Your task to perform on an android device: View the shopping cart on target.com. Add razer nari to the cart on target.com Image 0: 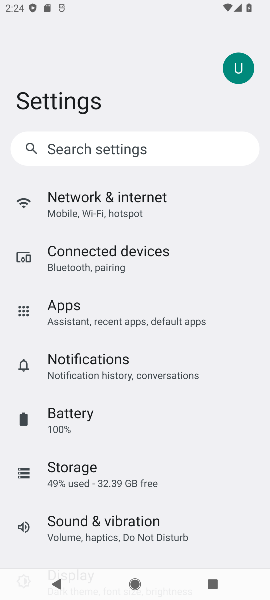
Step 0: press home button
Your task to perform on an android device: View the shopping cart on target.com. Add razer nari to the cart on target.com Image 1: 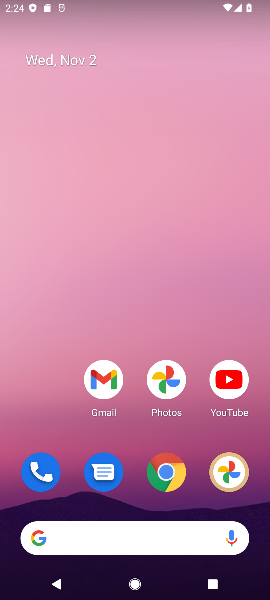
Step 1: click (165, 472)
Your task to perform on an android device: View the shopping cart on target.com. Add razer nari to the cart on target.com Image 2: 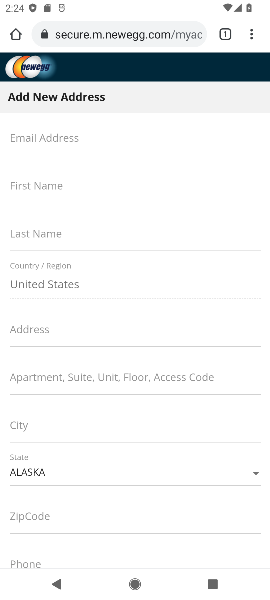
Step 2: click (121, 31)
Your task to perform on an android device: View the shopping cart on target.com. Add razer nari to the cart on target.com Image 3: 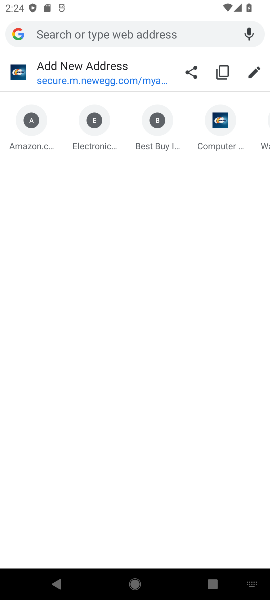
Step 3: type "target.com"
Your task to perform on an android device: View the shopping cart on target.com. Add razer nari to the cart on target.com Image 4: 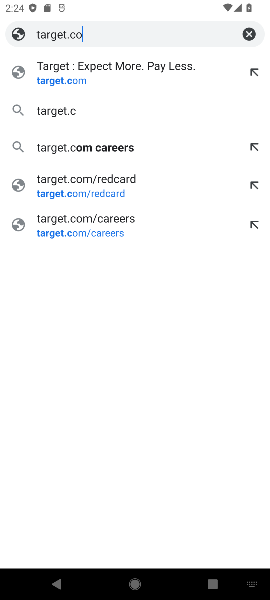
Step 4: type ""
Your task to perform on an android device: View the shopping cart on target.com. Add razer nari to the cart on target.com Image 5: 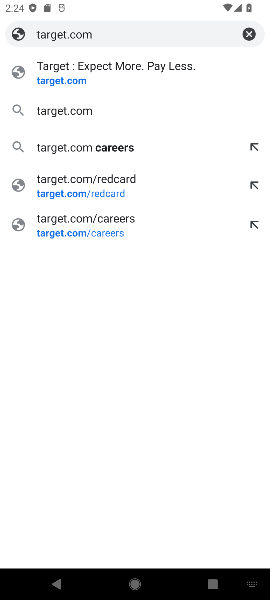
Step 5: click (36, 84)
Your task to perform on an android device: View the shopping cart on target.com. Add razer nari to the cart on target.com Image 6: 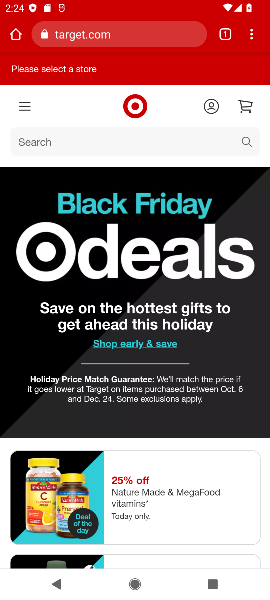
Step 6: click (114, 146)
Your task to perform on an android device: View the shopping cart on target.com. Add razer nari to the cart on target.com Image 7: 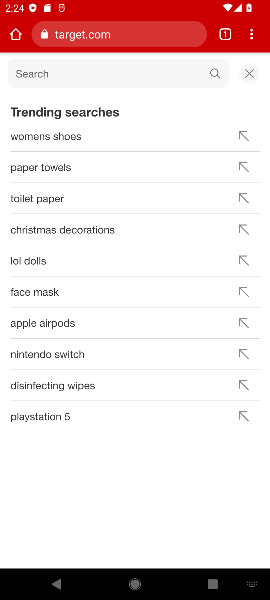
Step 7: type "razer nari"
Your task to perform on an android device: View the shopping cart on target.com. Add razer nari to the cart on target.com Image 8: 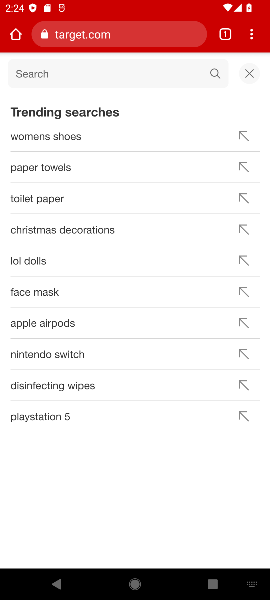
Step 8: type ""
Your task to perform on an android device: View the shopping cart on target.com. Add razer nari to the cart on target.com Image 9: 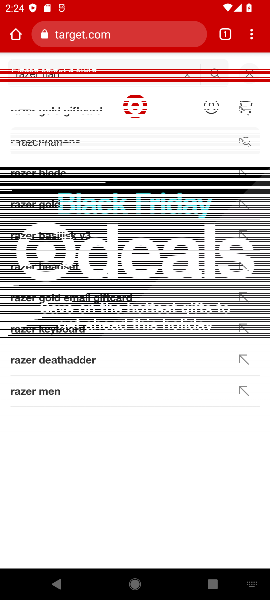
Step 9: press enter
Your task to perform on an android device: View the shopping cart on target.com. Add razer nari to the cart on target.com Image 10: 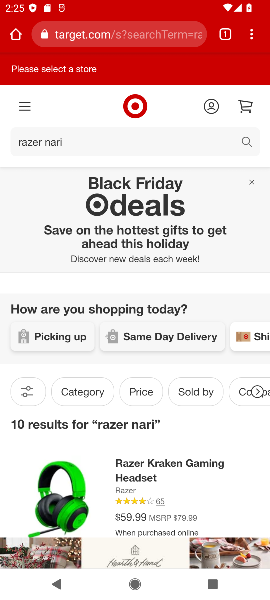
Step 10: drag from (148, 451) to (167, 237)
Your task to perform on an android device: View the shopping cart on target.com. Add razer nari to the cart on target.com Image 11: 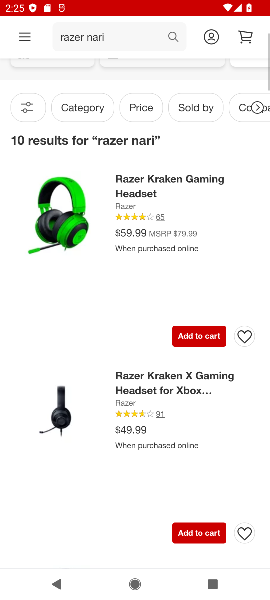
Step 11: drag from (176, 392) to (171, 251)
Your task to perform on an android device: View the shopping cart on target.com. Add razer nari to the cart on target.com Image 12: 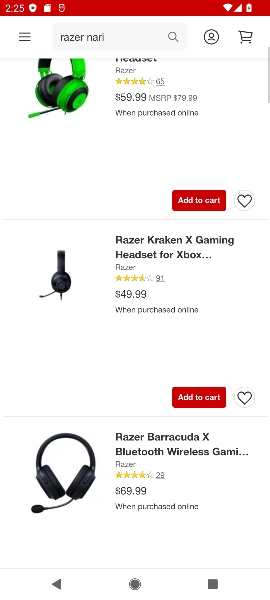
Step 12: drag from (161, 476) to (162, 277)
Your task to perform on an android device: View the shopping cart on target.com. Add razer nari to the cart on target.com Image 13: 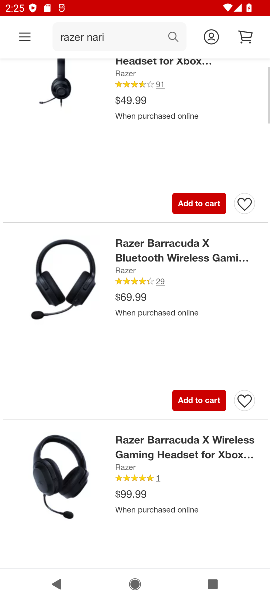
Step 13: drag from (192, 489) to (173, 262)
Your task to perform on an android device: View the shopping cart on target.com. Add razer nari to the cart on target.com Image 14: 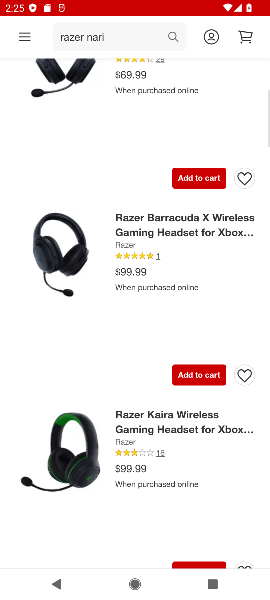
Step 14: drag from (192, 470) to (189, 258)
Your task to perform on an android device: View the shopping cart on target.com. Add razer nari to the cart on target.com Image 15: 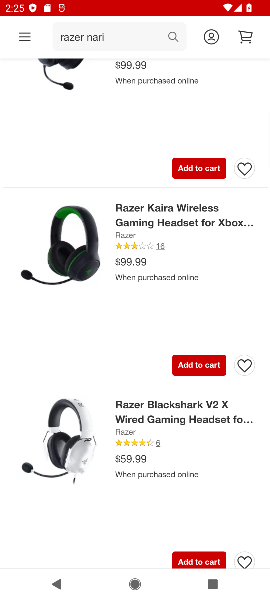
Step 15: drag from (198, 481) to (189, 275)
Your task to perform on an android device: View the shopping cart on target.com. Add razer nari to the cart on target.com Image 16: 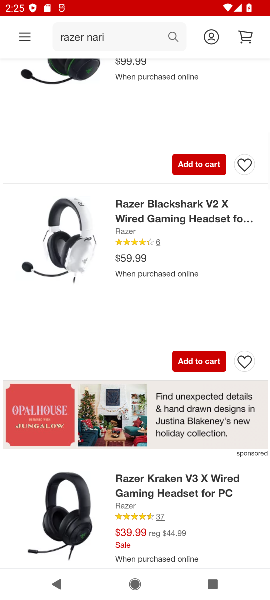
Step 16: drag from (177, 438) to (170, 285)
Your task to perform on an android device: View the shopping cart on target.com. Add razer nari to the cart on target.com Image 17: 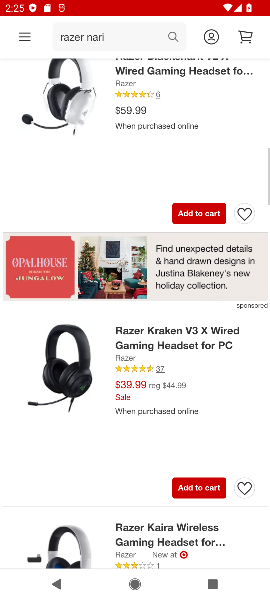
Step 17: drag from (177, 472) to (158, 264)
Your task to perform on an android device: View the shopping cart on target.com. Add razer nari to the cart on target.com Image 18: 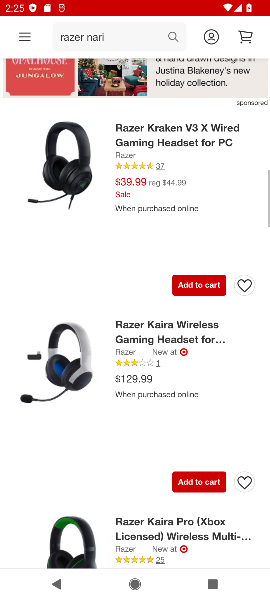
Step 18: drag from (167, 454) to (166, 190)
Your task to perform on an android device: View the shopping cart on target.com. Add razer nari to the cart on target.com Image 19: 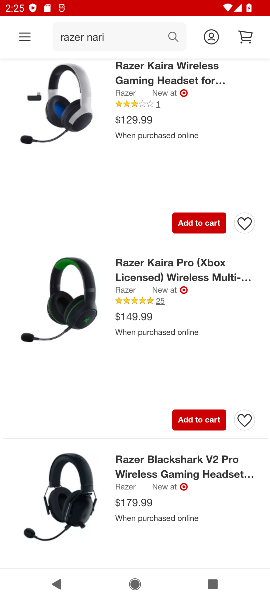
Step 19: drag from (136, 445) to (132, 228)
Your task to perform on an android device: View the shopping cart on target.com. Add razer nari to the cart on target.com Image 20: 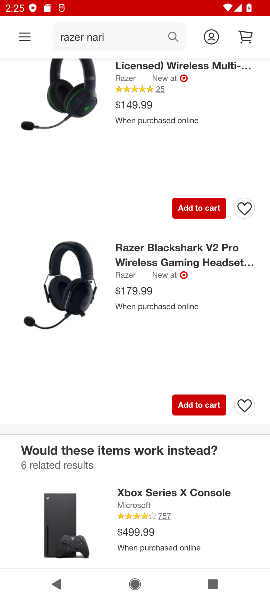
Step 20: drag from (160, 230) to (160, 576)
Your task to perform on an android device: View the shopping cart on target.com. Add razer nari to the cart on target.com Image 21: 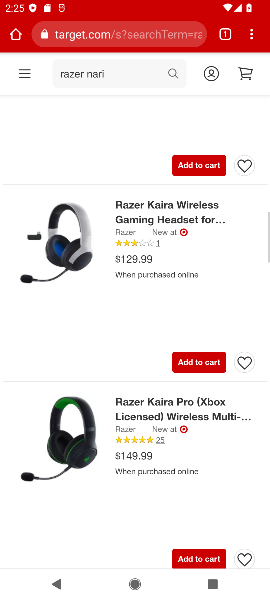
Step 21: drag from (132, 185) to (149, 595)
Your task to perform on an android device: View the shopping cart on target.com. Add razer nari to the cart on target.com Image 22: 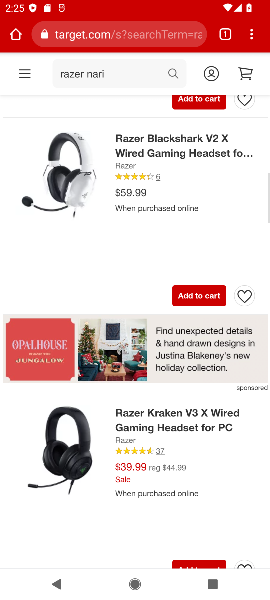
Step 22: drag from (179, 280) to (187, 582)
Your task to perform on an android device: View the shopping cart on target.com. Add razer nari to the cart on target.com Image 23: 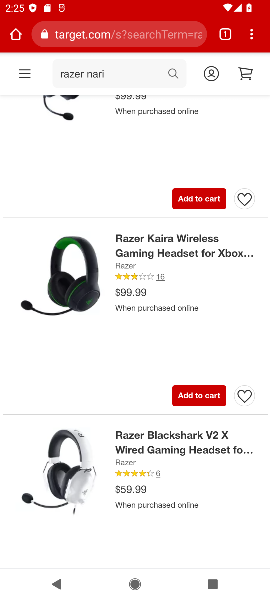
Step 23: drag from (160, 266) to (177, 541)
Your task to perform on an android device: View the shopping cart on target.com. Add razer nari to the cart on target.com Image 24: 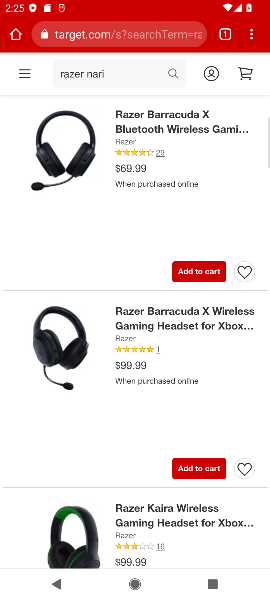
Step 24: drag from (154, 297) to (178, 569)
Your task to perform on an android device: View the shopping cart on target.com. Add razer nari to the cart on target.com Image 25: 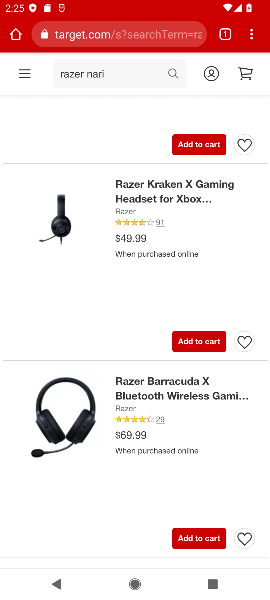
Step 25: drag from (160, 296) to (166, 558)
Your task to perform on an android device: View the shopping cart on target.com. Add razer nari to the cart on target.com Image 26: 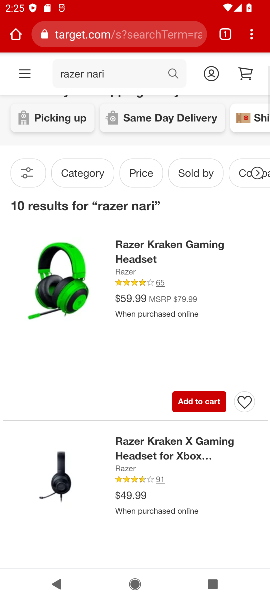
Step 26: click (149, 299)
Your task to perform on an android device: View the shopping cart on target.com. Add razer nari to the cart on target.com Image 27: 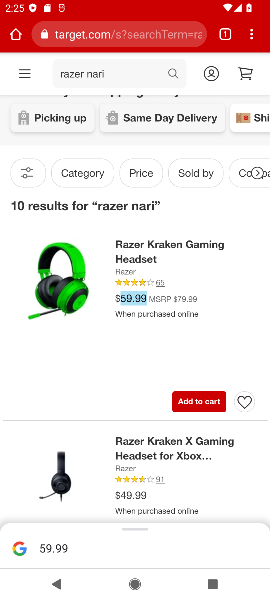
Step 27: click (183, 406)
Your task to perform on an android device: View the shopping cart on target.com. Add razer nari to the cart on target.com Image 28: 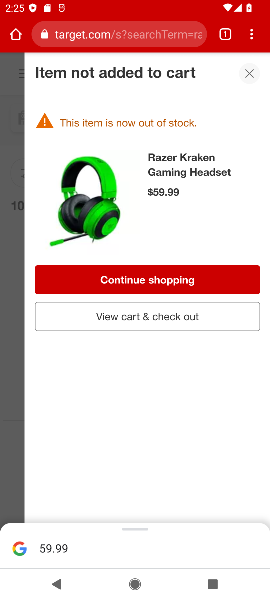
Step 28: click (152, 321)
Your task to perform on an android device: View the shopping cart on target.com. Add razer nari to the cart on target.com Image 29: 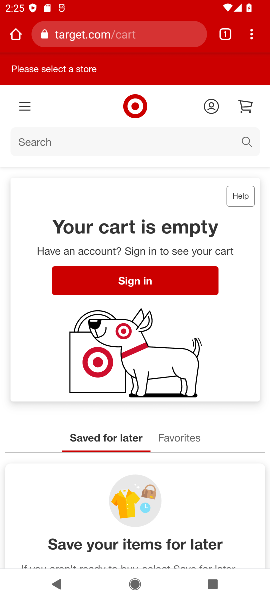
Step 29: drag from (206, 480) to (198, 270)
Your task to perform on an android device: View the shopping cart on target.com. Add razer nari to the cart on target.com Image 30: 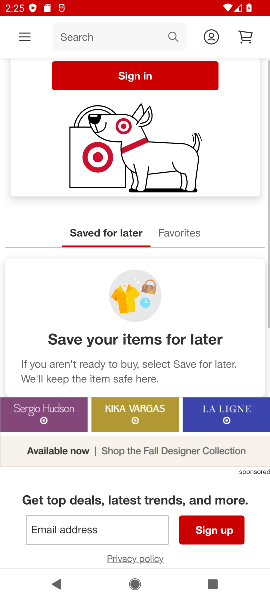
Step 30: drag from (219, 151) to (224, 422)
Your task to perform on an android device: View the shopping cart on target.com. Add razer nari to the cart on target.com Image 31: 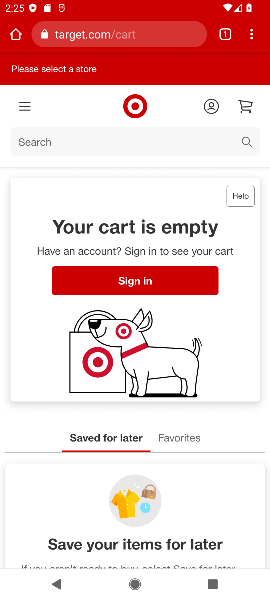
Step 31: click (247, 99)
Your task to perform on an android device: View the shopping cart on target.com. Add razer nari to the cart on target.com Image 32: 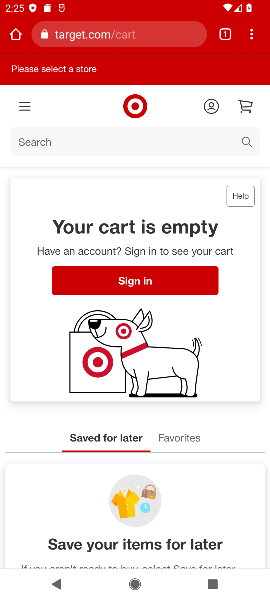
Step 32: drag from (199, 397) to (183, 206)
Your task to perform on an android device: View the shopping cart on target.com. Add razer nari to the cart on target.com Image 33: 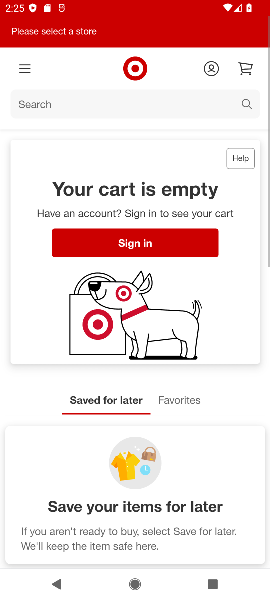
Step 33: drag from (182, 342) to (160, 133)
Your task to perform on an android device: View the shopping cart on target.com. Add razer nari to the cart on target.com Image 34: 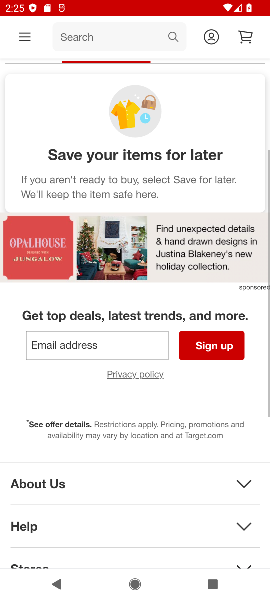
Step 34: drag from (158, 350) to (137, 168)
Your task to perform on an android device: View the shopping cart on target.com. Add razer nari to the cart on target.com Image 35: 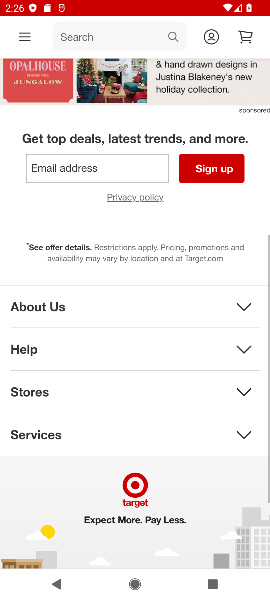
Step 35: drag from (145, 375) to (134, 249)
Your task to perform on an android device: View the shopping cart on target.com. Add razer nari to the cart on target.com Image 36: 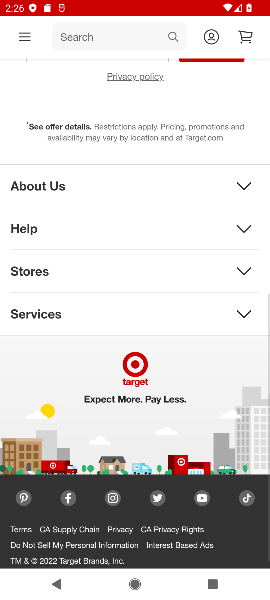
Step 36: press back button
Your task to perform on an android device: View the shopping cart on target.com. Add razer nari to the cart on target.com Image 37: 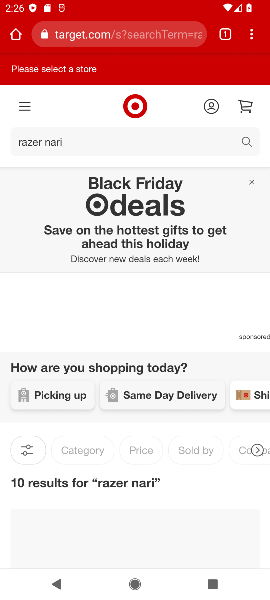
Step 37: drag from (148, 464) to (157, 167)
Your task to perform on an android device: View the shopping cart on target.com. Add razer nari to the cart on target.com Image 38: 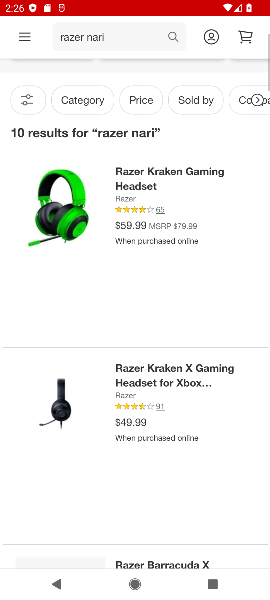
Step 38: drag from (164, 414) to (161, 308)
Your task to perform on an android device: View the shopping cart on target.com. Add razer nari to the cart on target.com Image 39: 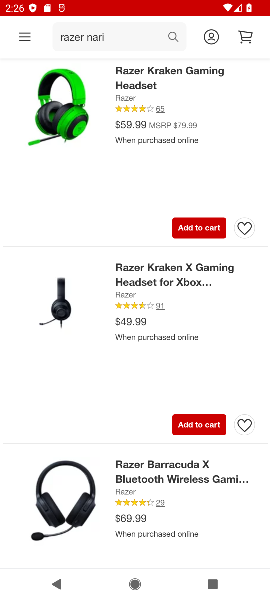
Step 39: click (189, 228)
Your task to perform on an android device: View the shopping cart on target.com. Add razer nari to the cart on target.com Image 40: 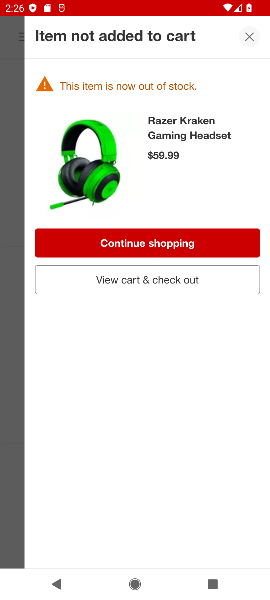
Step 40: click (239, 47)
Your task to perform on an android device: View the shopping cart on target.com. Add razer nari to the cart on target.com Image 41: 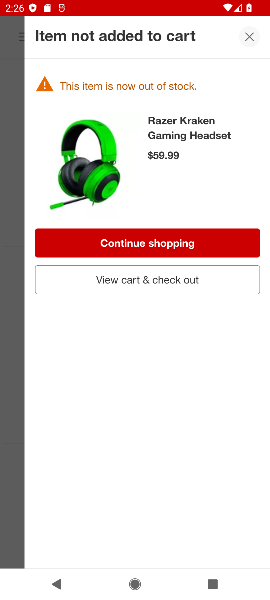
Step 41: click (244, 40)
Your task to perform on an android device: View the shopping cart on target.com. Add razer nari to the cart on target.com Image 42: 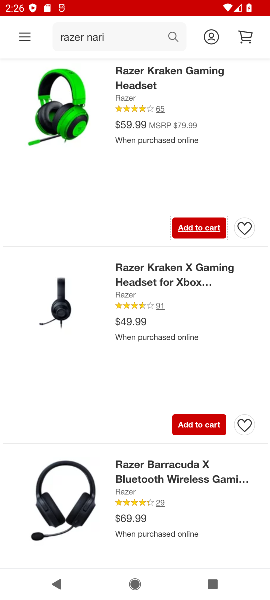
Step 42: click (174, 282)
Your task to perform on an android device: View the shopping cart on target.com. Add razer nari to the cart on target.com Image 43: 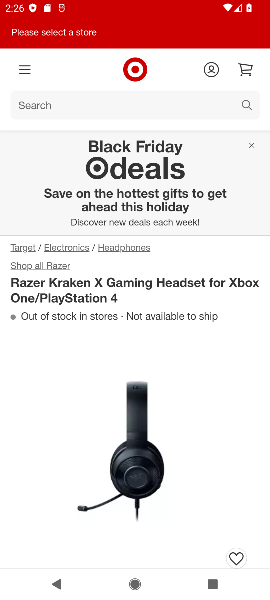
Step 43: drag from (201, 446) to (170, 210)
Your task to perform on an android device: View the shopping cart on target.com. Add razer nari to the cart on target.com Image 44: 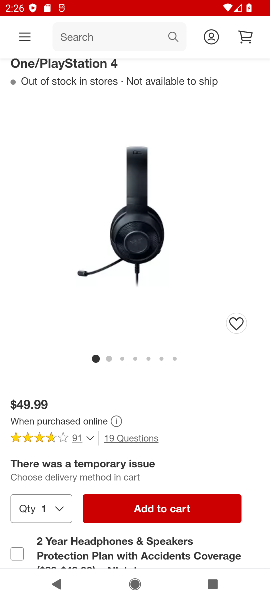
Step 44: click (139, 517)
Your task to perform on an android device: View the shopping cart on target.com. Add razer nari to the cart on target.com Image 45: 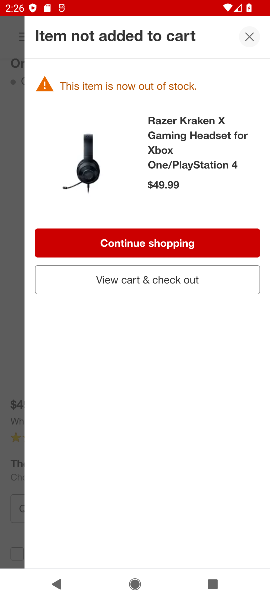
Step 45: press back button
Your task to perform on an android device: View the shopping cart on target.com. Add razer nari to the cart on target.com Image 46: 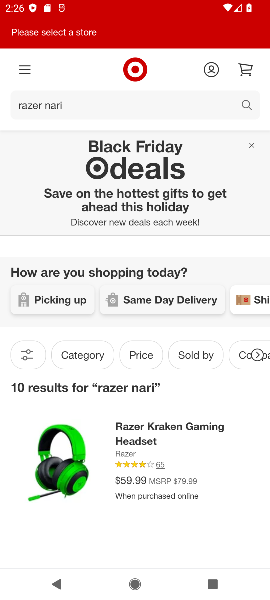
Step 46: drag from (192, 513) to (157, 123)
Your task to perform on an android device: View the shopping cart on target.com. Add razer nari to the cart on target.com Image 47: 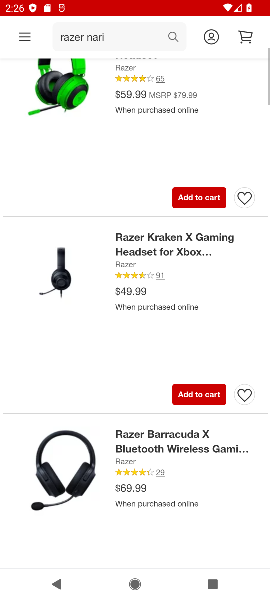
Step 47: drag from (144, 481) to (138, 262)
Your task to perform on an android device: View the shopping cart on target.com. Add razer nari to the cart on target.com Image 48: 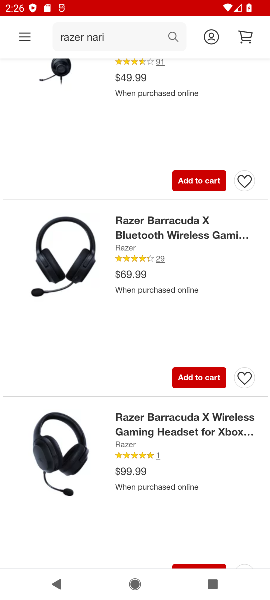
Step 48: click (195, 368)
Your task to perform on an android device: View the shopping cart on target.com. Add razer nari to the cart on target.com Image 49: 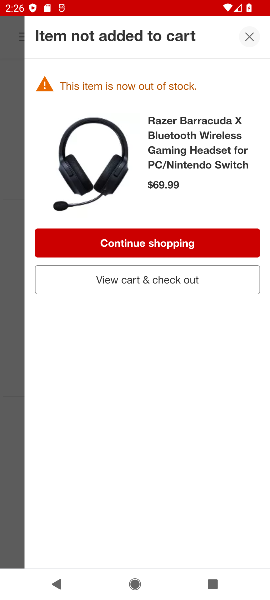
Step 49: press back button
Your task to perform on an android device: View the shopping cart on target.com. Add razer nari to the cart on target.com Image 50: 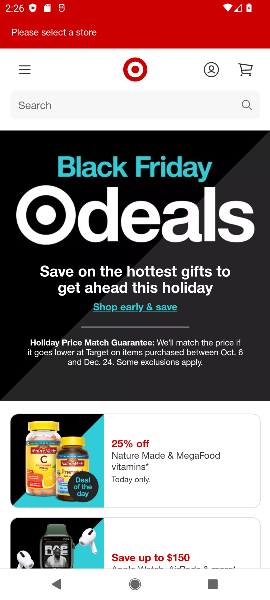
Step 50: click (138, 100)
Your task to perform on an android device: View the shopping cart on target.com. Add razer nari to the cart on target.com Image 51: 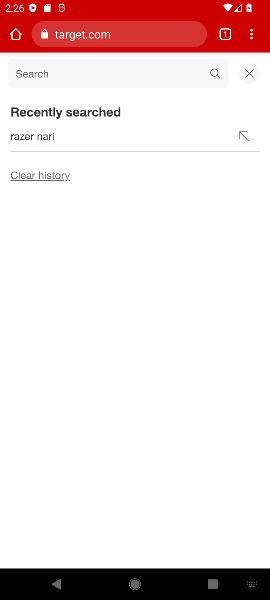
Step 51: click (39, 136)
Your task to perform on an android device: View the shopping cart on target.com. Add razer nari to the cart on target.com Image 52: 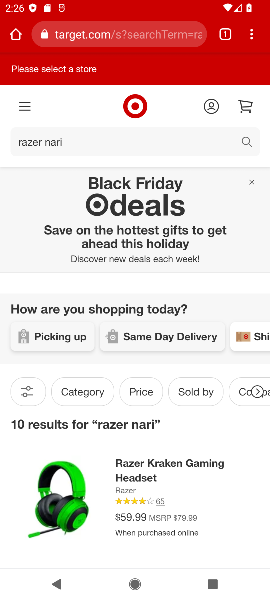
Step 52: drag from (137, 363) to (159, 151)
Your task to perform on an android device: View the shopping cart on target.com. Add razer nari to the cart on target.com Image 53: 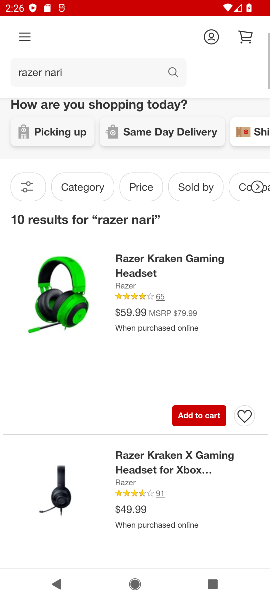
Step 53: drag from (144, 429) to (150, 246)
Your task to perform on an android device: View the shopping cart on target.com. Add razer nari to the cart on target.com Image 54: 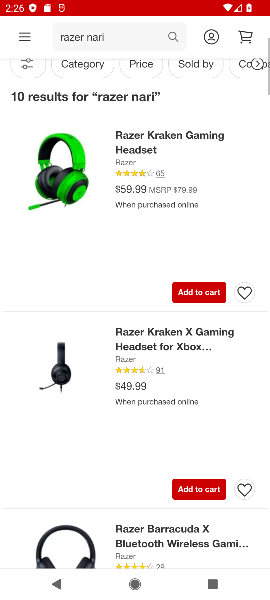
Step 54: drag from (151, 422) to (154, 149)
Your task to perform on an android device: View the shopping cart on target.com. Add razer nari to the cart on target.com Image 55: 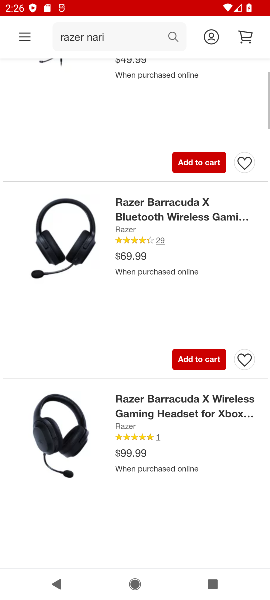
Step 55: click (151, 168)
Your task to perform on an android device: View the shopping cart on target.com. Add razer nari to the cart on target.com Image 56: 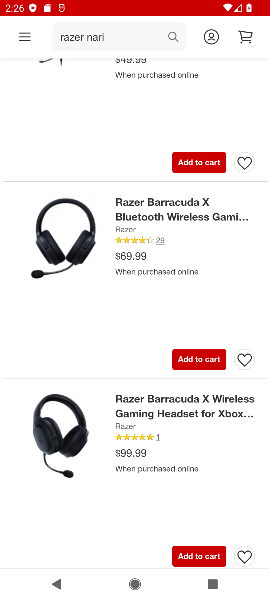
Step 56: drag from (133, 376) to (151, 192)
Your task to perform on an android device: View the shopping cart on target.com. Add razer nari to the cart on target.com Image 57: 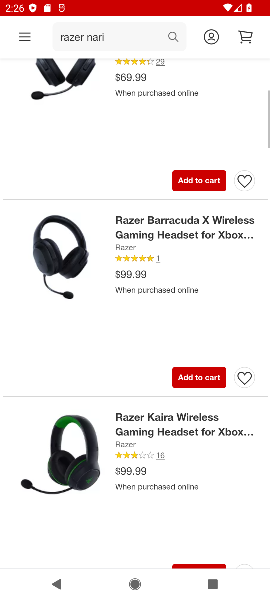
Step 57: drag from (148, 495) to (155, 205)
Your task to perform on an android device: View the shopping cart on target.com. Add razer nari to the cart on target.com Image 58: 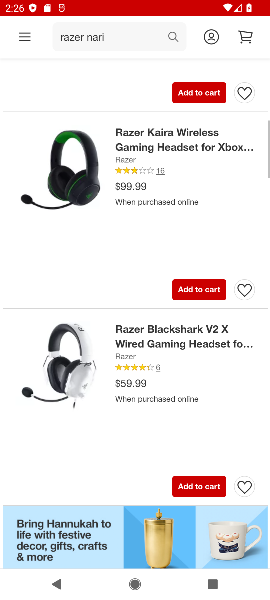
Step 58: drag from (134, 446) to (143, 191)
Your task to perform on an android device: View the shopping cart on target.com. Add razer nari to the cart on target.com Image 59: 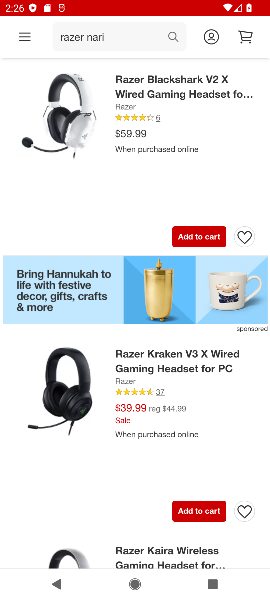
Step 59: click (200, 514)
Your task to perform on an android device: View the shopping cart on target.com. Add razer nari to the cart on target.com Image 60: 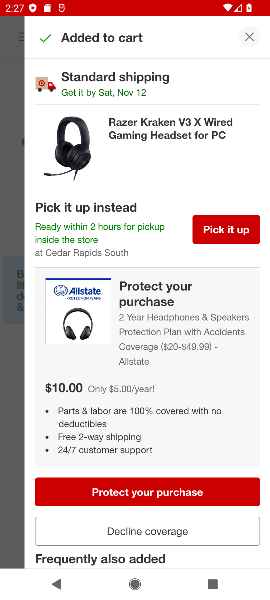
Step 60: click (150, 539)
Your task to perform on an android device: View the shopping cart on target.com. Add razer nari to the cart on target.com Image 61: 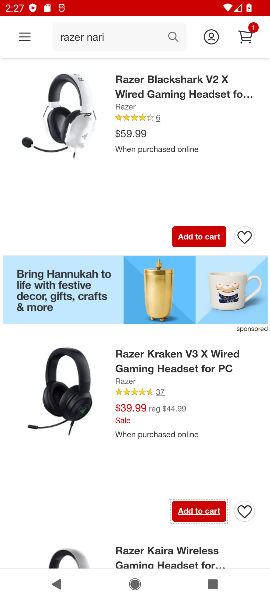
Step 61: task complete